Your task to perform on an android device: change the clock display to digital Image 0: 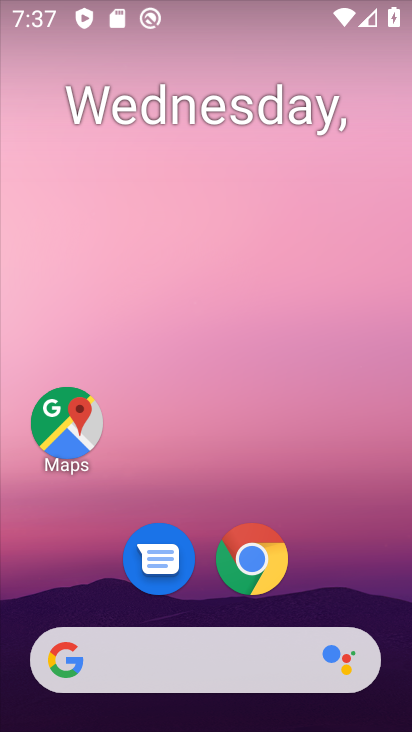
Step 0: drag from (202, 548) to (265, 1)
Your task to perform on an android device: change the clock display to digital Image 1: 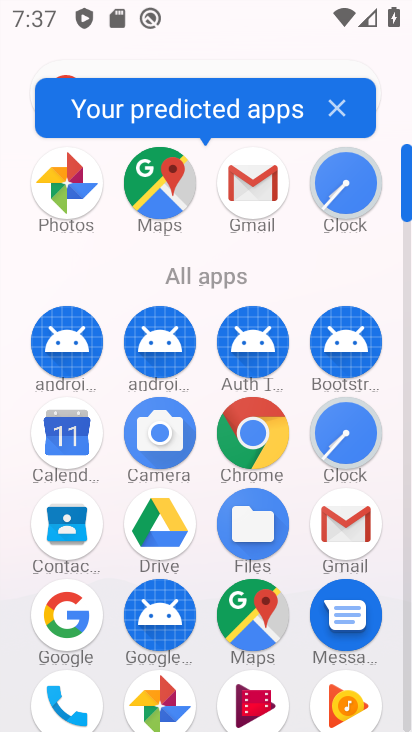
Step 1: click (348, 431)
Your task to perform on an android device: change the clock display to digital Image 2: 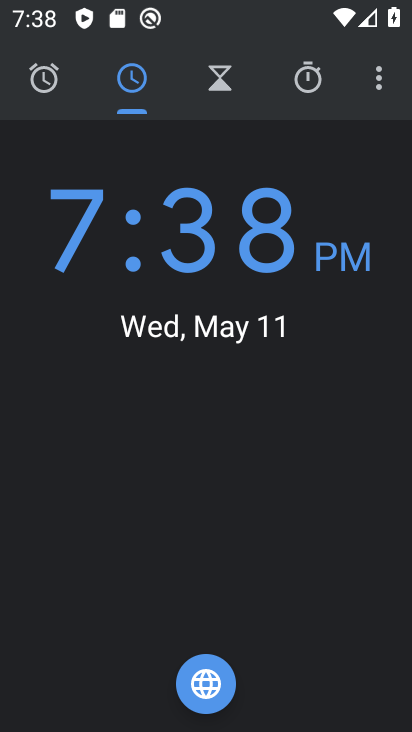
Step 2: click (375, 80)
Your task to perform on an android device: change the clock display to digital Image 3: 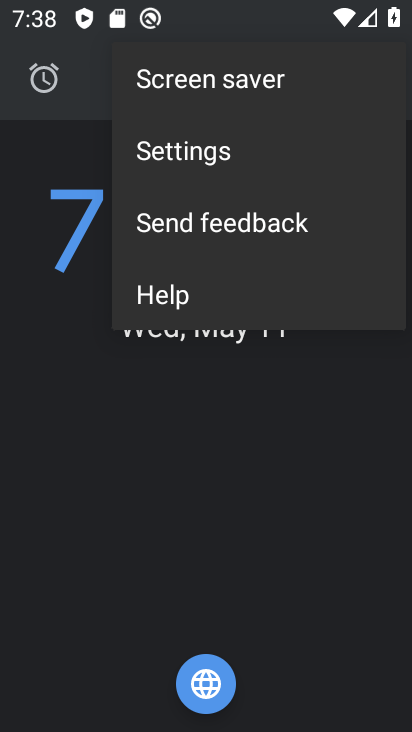
Step 3: click (252, 150)
Your task to perform on an android device: change the clock display to digital Image 4: 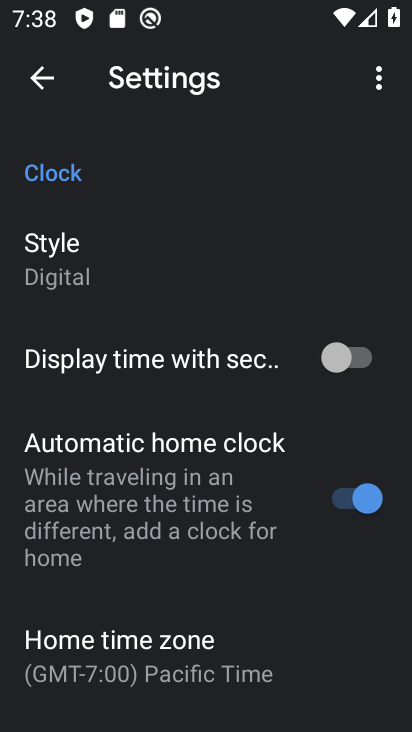
Step 4: task complete